Your task to perform on an android device: Show me popular videos on Youtube Image 0: 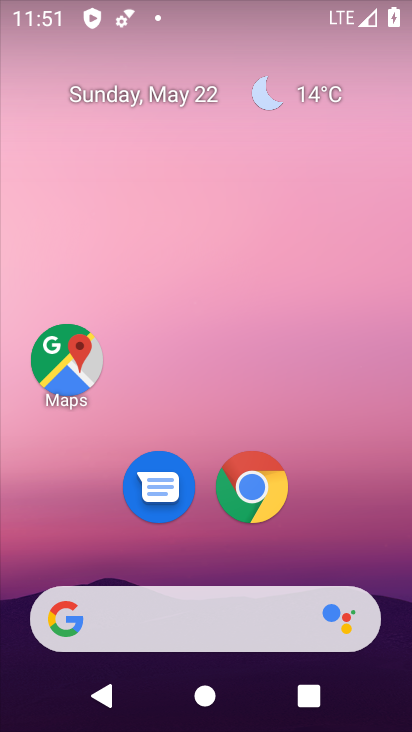
Step 0: drag from (358, 497) to (371, 66)
Your task to perform on an android device: Show me popular videos on Youtube Image 1: 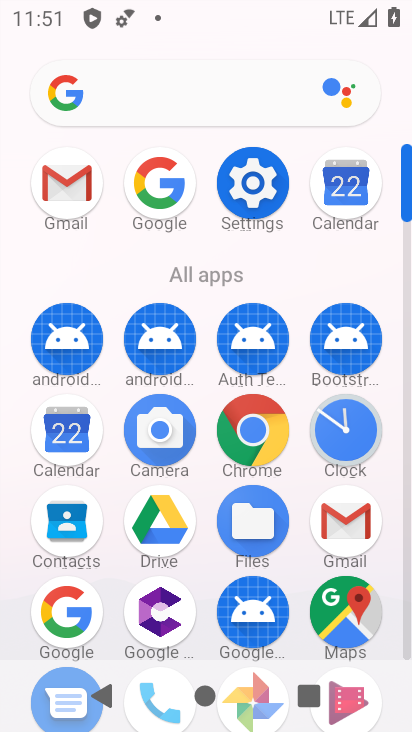
Step 1: drag from (398, 444) to (408, 251)
Your task to perform on an android device: Show me popular videos on Youtube Image 2: 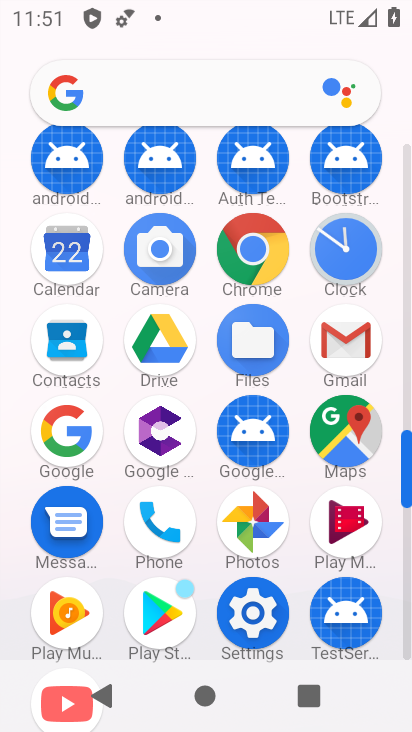
Step 2: drag from (396, 622) to (392, 418)
Your task to perform on an android device: Show me popular videos on Youtube Image 3: 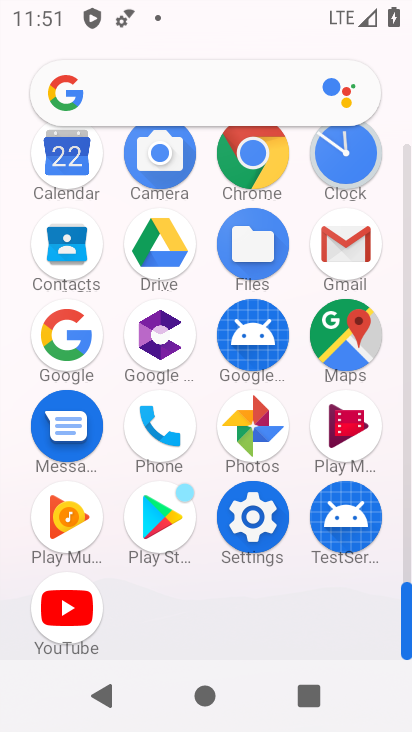
Step 3: click (72, 624)
Your task to perform on an android device: Show me popular videos on Youtube Image 4: 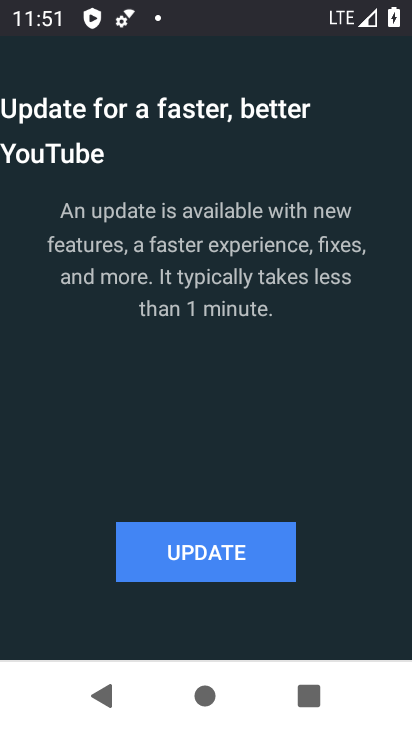
Step 4: click (221, 574)
Your task to perform on an android device: Show me popular videos on Youtube Image 5: 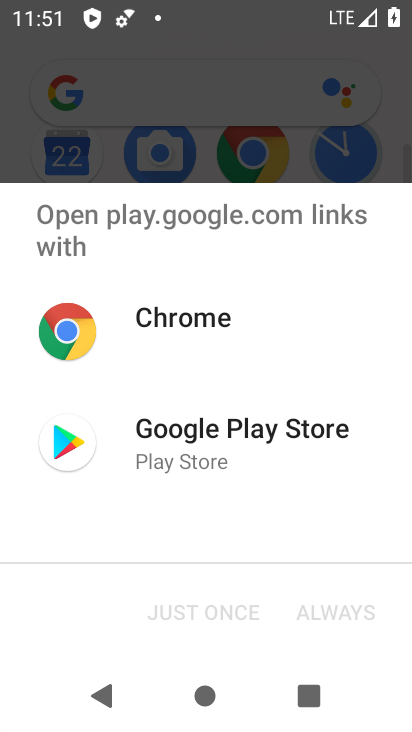
Step 5: click (128, 417)
Your task to perform on an android device: Show me popular videos on Youtube Image 6: 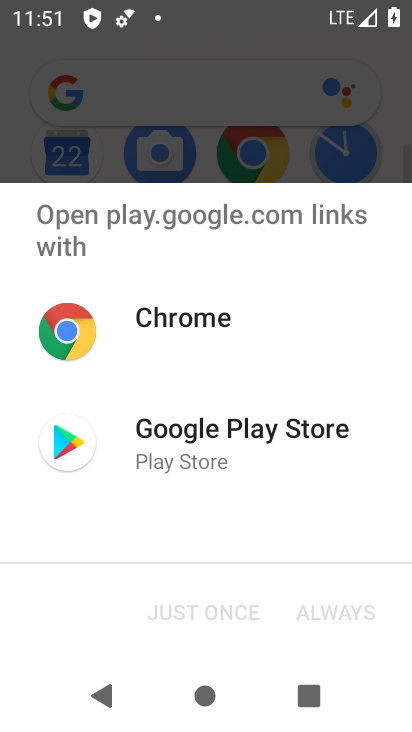
Step 6: click (141, 445)
Your task to perform on an android device: Show me popular videos on Youtube Image 7: 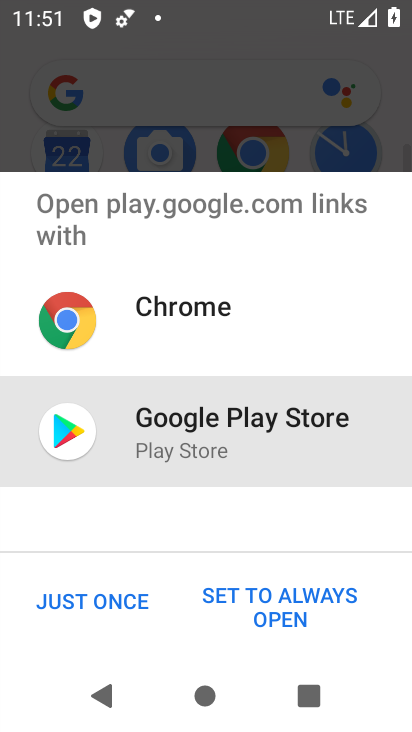
Step 7: click (118, 587)
Your task to perform on an android device: Show me popular videos on Youtube Image 8: 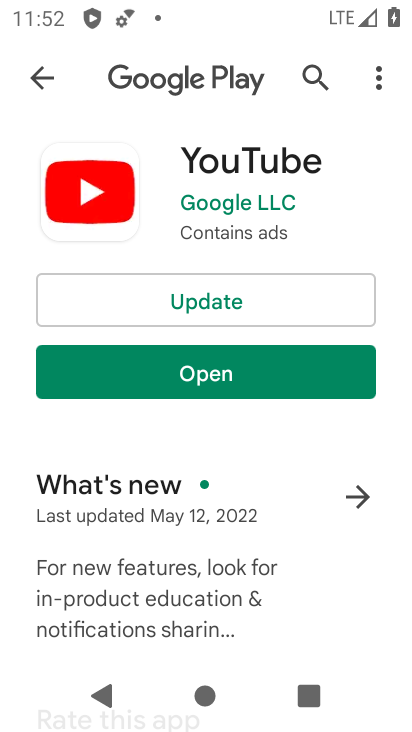
Step 8: click (171, 290)
Your task to perform on an android device: Show me popular videos on Youtube Image 9: 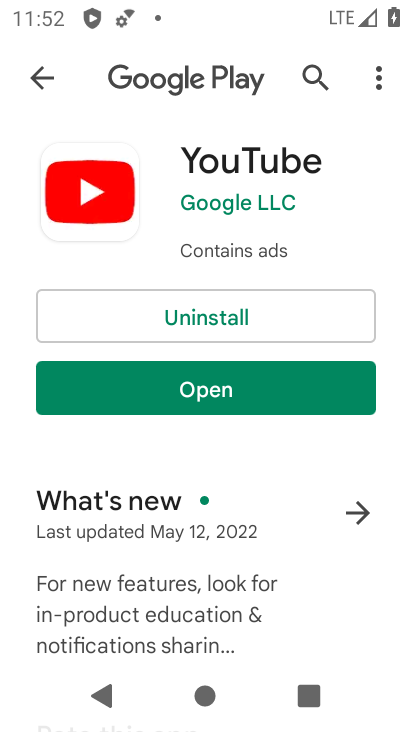
Step 9: click (253, 401)
Your task to perform on an android device: Show me popular videos on Youtube Image 10: 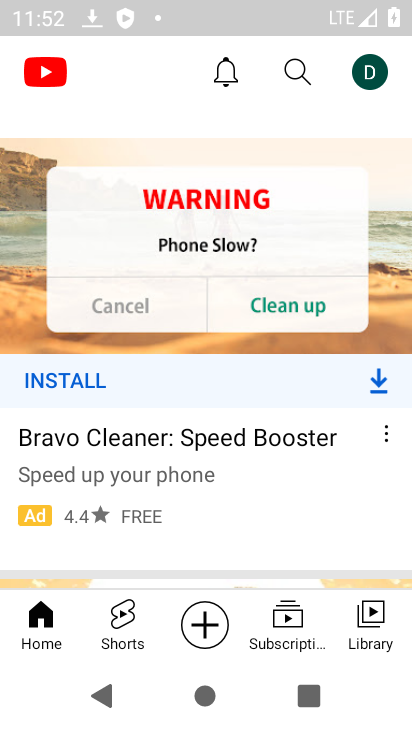
Step 10: click (137, 322)
Your task to perform on an android device: Show me popular videos on Youtube Image 11: 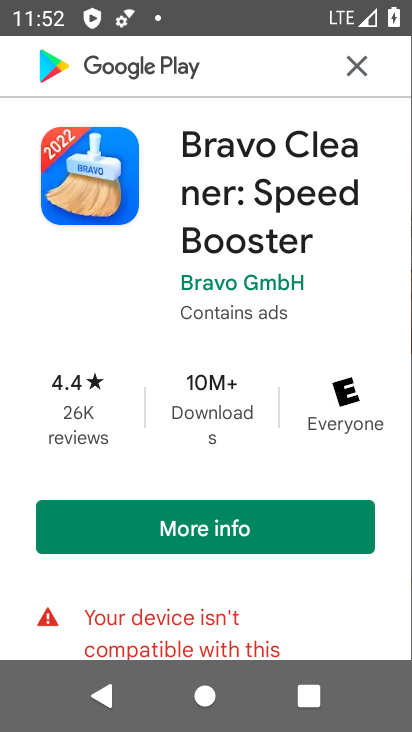
Step 11: click (343, 59)
Your task to perform on an android device: Show me popular videos on Youtube Image 12: 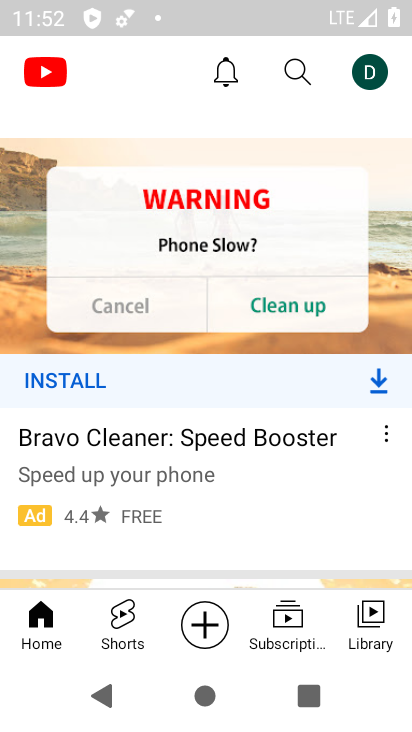
Step 12: click (302, 78)
Your task to perform on an android device: Show me popular videos on Youtube Image 13: 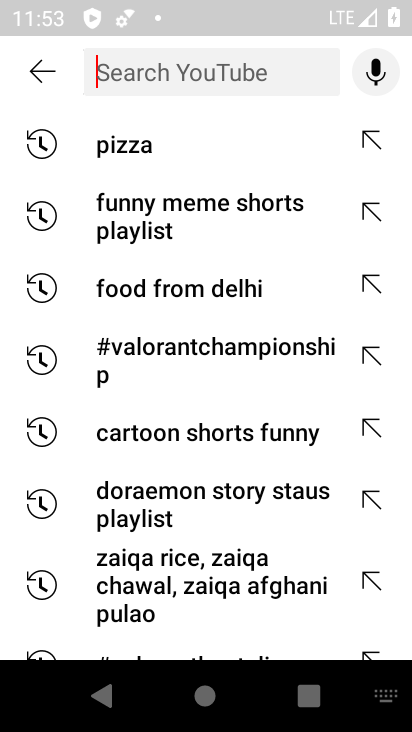
Step 13: type "popular videos"
Your task to perform on an android device: Show me popular videos on Youtube Image 14: 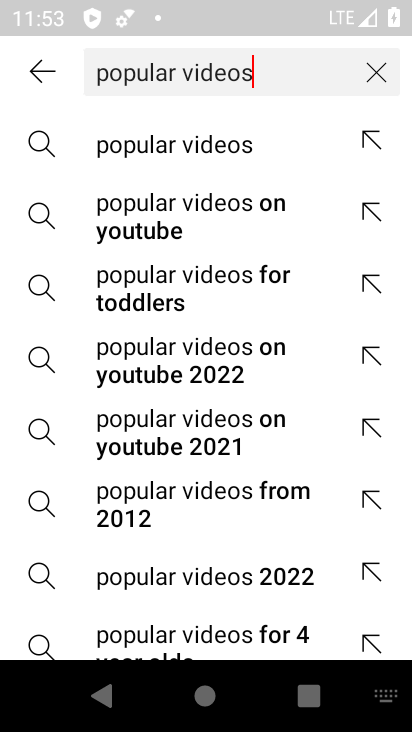
Step 14: click (185, 161)
Your task to perform on an android device: Show me popular videos on Youtube Image 15: 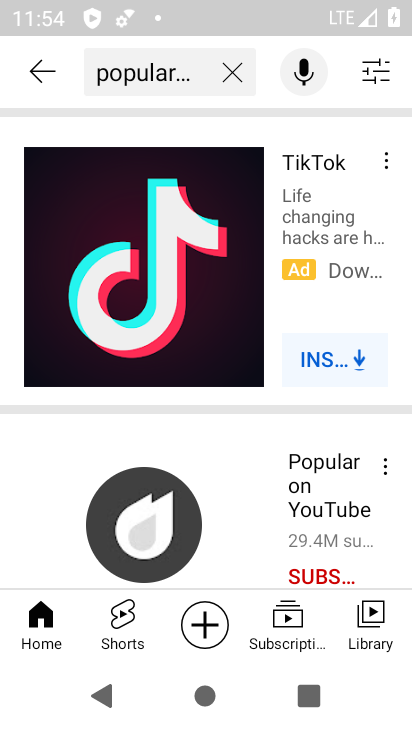
Step 15: task complete